Your task to perform on an android device: check android version Image 0: 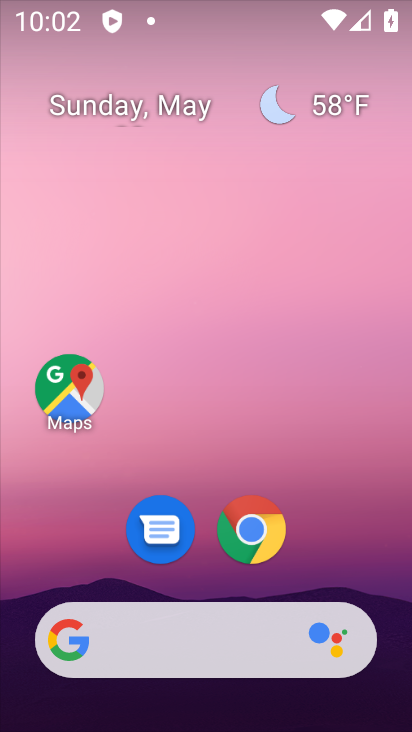
Step 0: drag from (191, 568) to (223, 15)
Your task to perform on an android device: check android version Image 1: 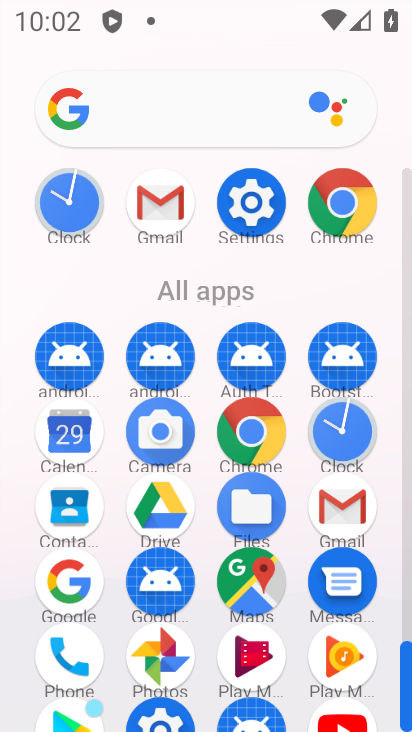
Step 1: click (264, 224)
Your task to perform on an android device: check android version Image 2: 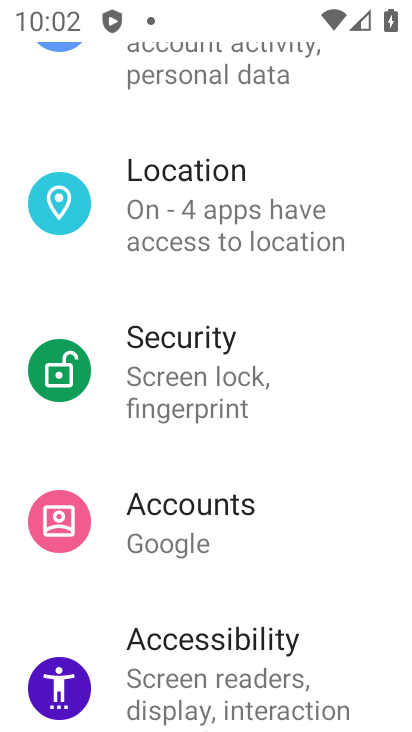
Step 2: drag from (273, 220) to (280, 717)
Your task to perform on an android device: check android version Image 3: 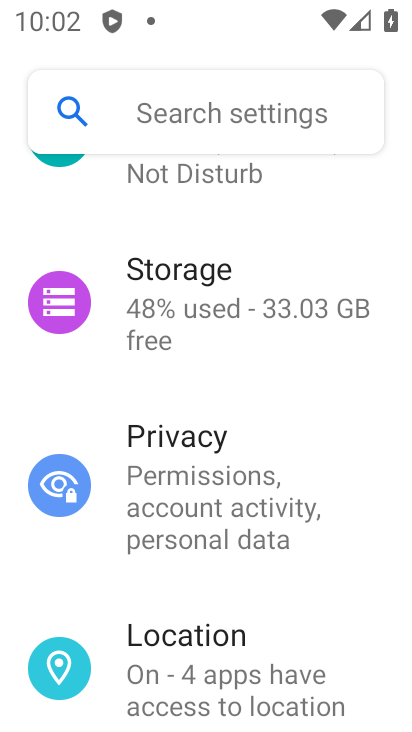
Step 3: drag from (259, 659) to (238, 54)
Your task to perform on an android device: check android version Image 4: 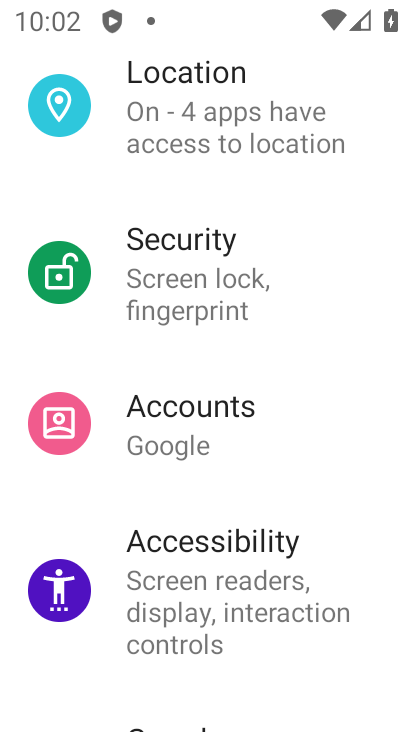
Step 4: drag from (225, 545) to (252, 2)
Your task to perform on an android device: check android version Image 5: 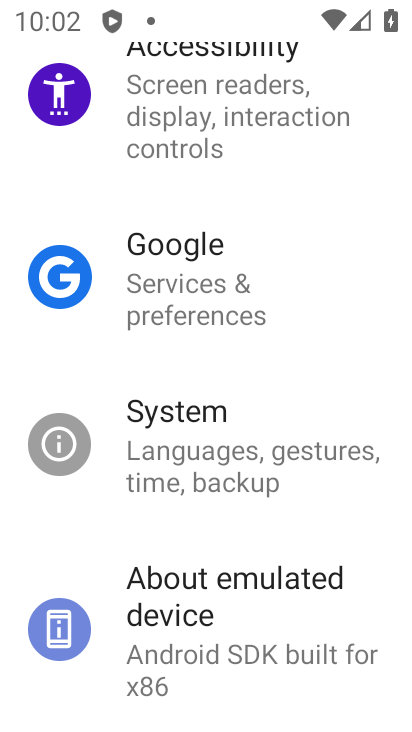
Step 5: drag from (205, 629) to (241, 294)
Your task to perform on an android device: check android version Image 6: 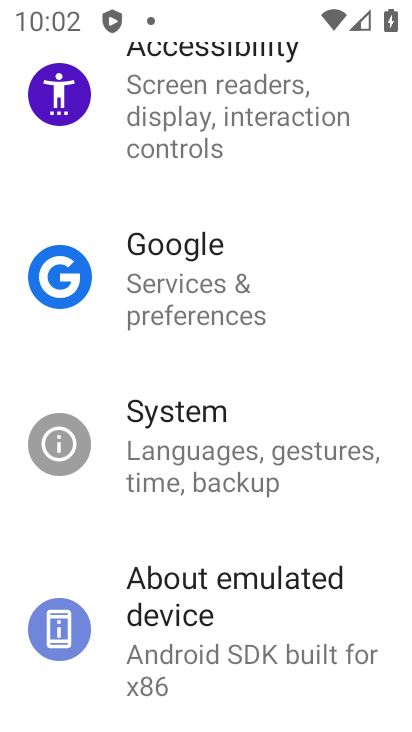
Step 6: click (167, 613)
Your task to perform on an android device: check android version Image 7: 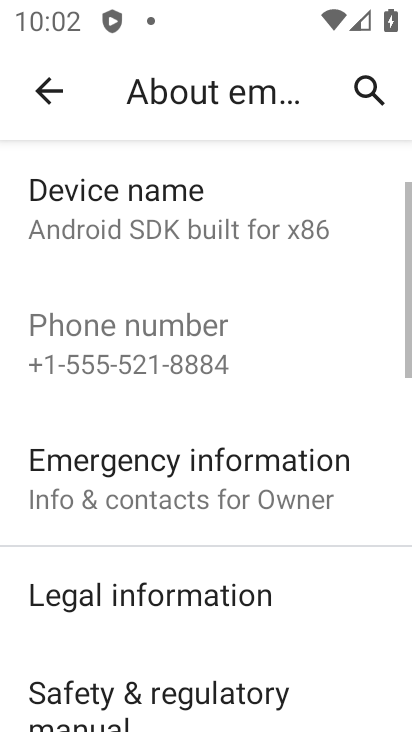
Step 7: click (168, 612)
Your task to perform on an android device: check android version Image 8: 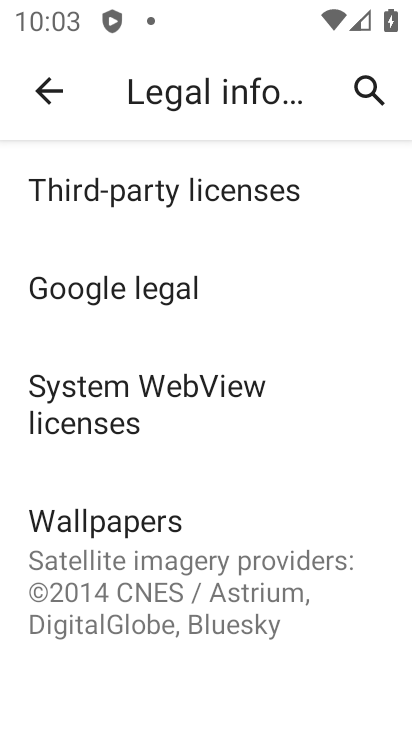
Step 8: click (62, 95)
Your task to perform on an android device: check android version Image 9: 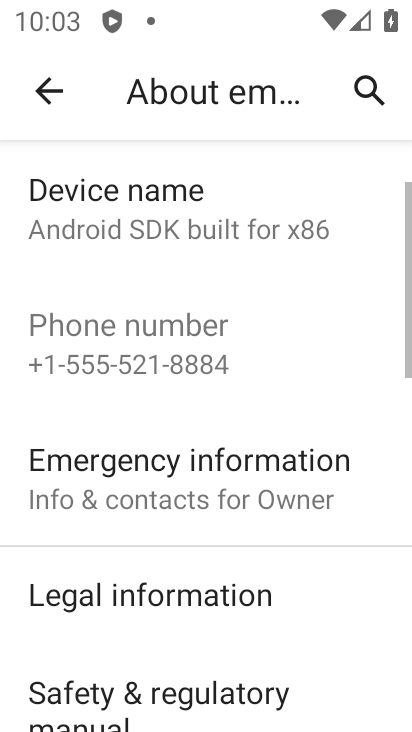
Step 9: drag from (169, 612) to (206, 49)
Your task to perform on an android device: check android version Image 10: 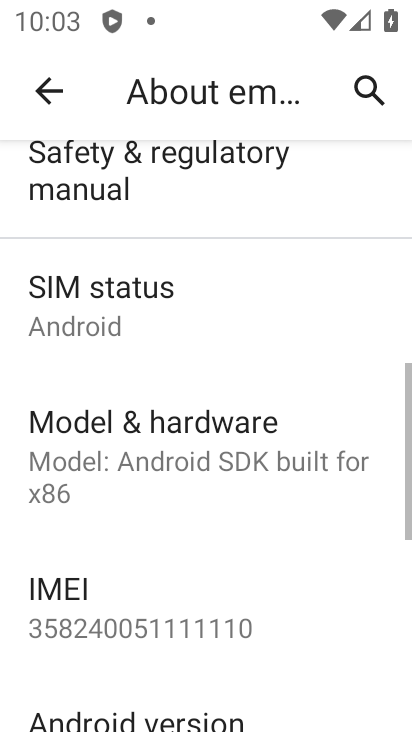
Step 10: drag from (140, 559) to (179, 243)
Your task to perform on an android device: check android version Image 11: 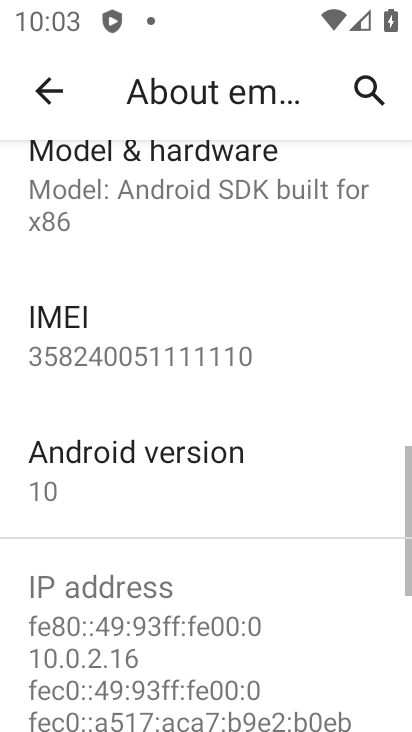
Step 11: click (125, 487)
Your task to perform on an android device: check android version Image 12: 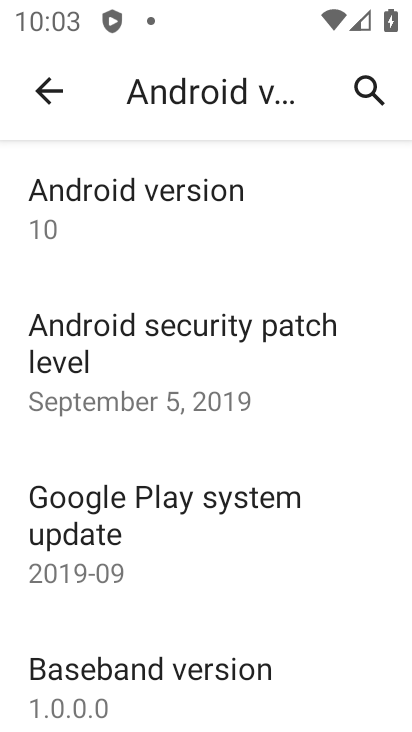
Step 12: task complete